Your task to perform on an android device: Go to Maps Image 0: 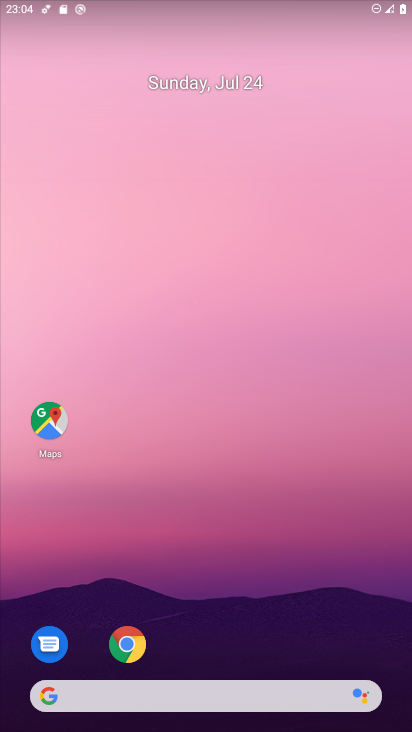
Step 0: click (52, 420)
Your task to perform on an android device: Go to Maps Image 1: 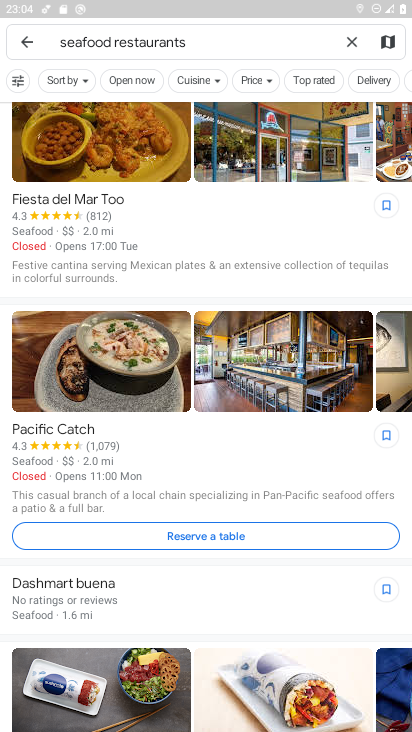
Step 1: click (349, 40)
Your task to perform on an android device: Go to Maps Image 2: 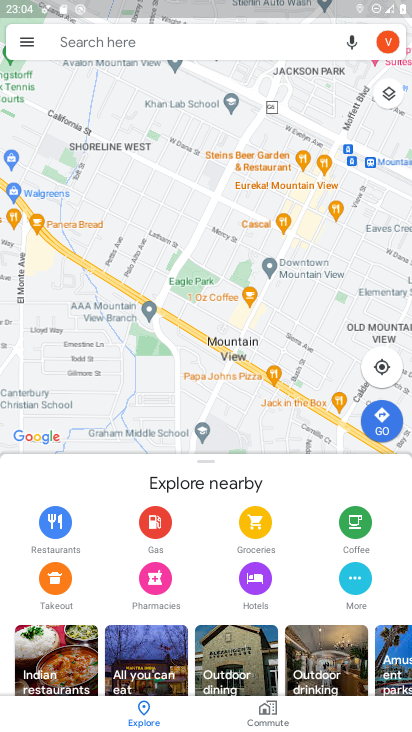
Step 2: task complete